Your task to perform on an android device: Go to internet settings Image 0: 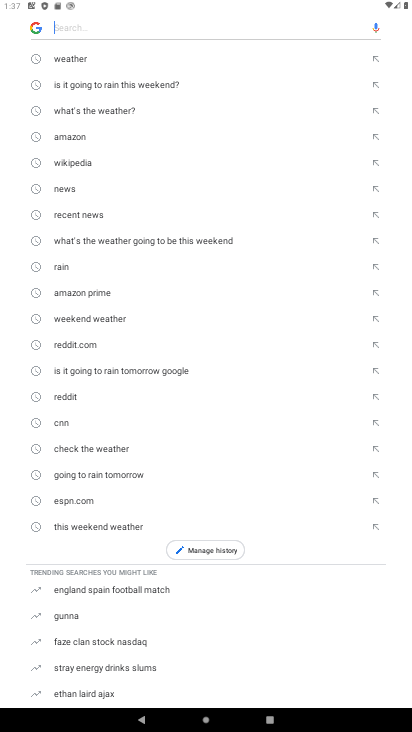
Step 0: press home button
Your task to perform on an android device: Go to internet settings Image 1: 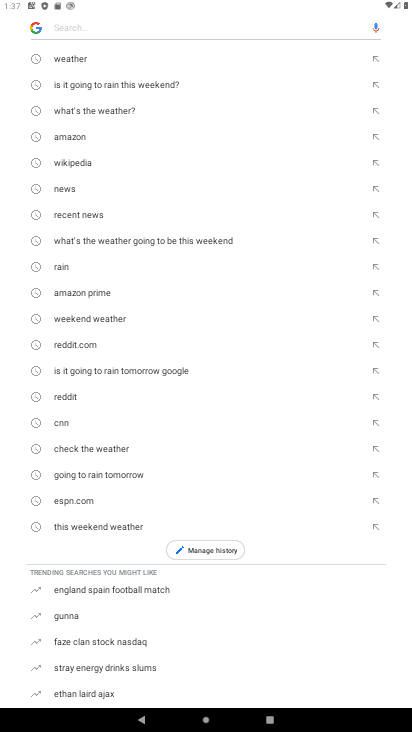
Step 1: press home button
Your task to perform on an android device: Go to internet settings Image 2: 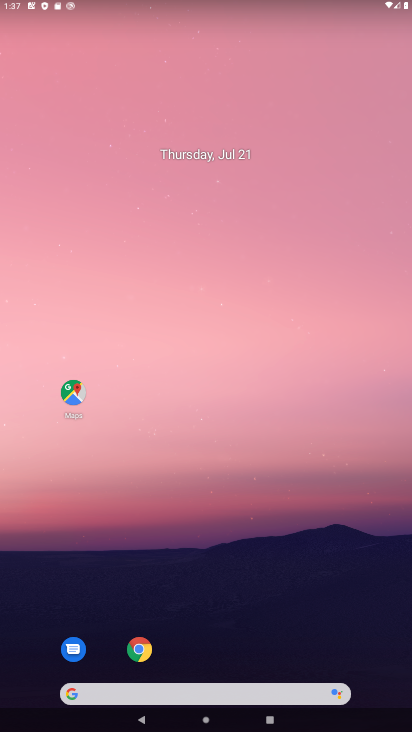
Step 2: drag from (233, 623) to (233, 97)
Your task to perform on an android device: Go to internet settings Image 3: 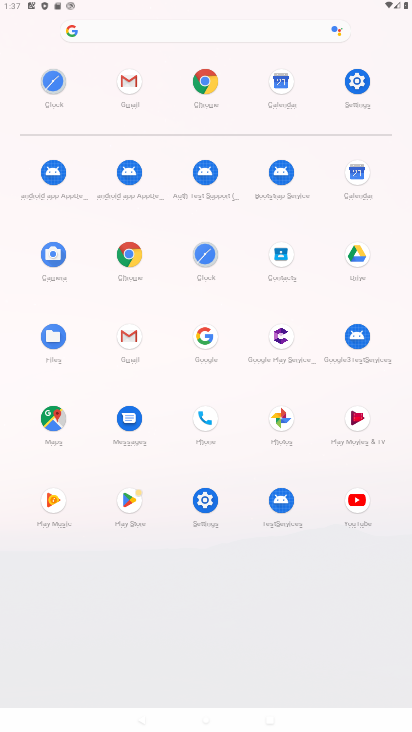
Step 3: click (355, 82)
Your task to perform on an android device: Go to internet settings Image 4: 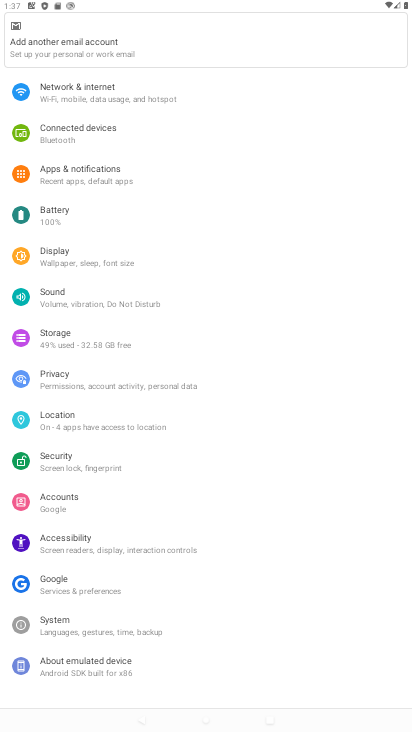
Step 4: click (82, 98)
Your task to perform on an android device: Go to internet settings Image 5: 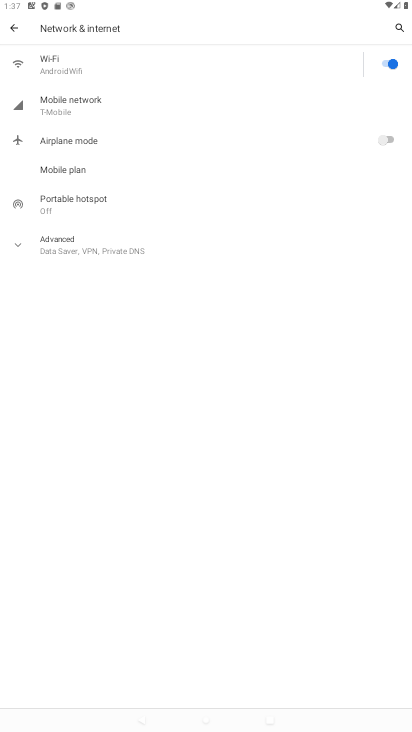
Step 5: task complete